Your task to perform on an android device: Go to Google Image 0: 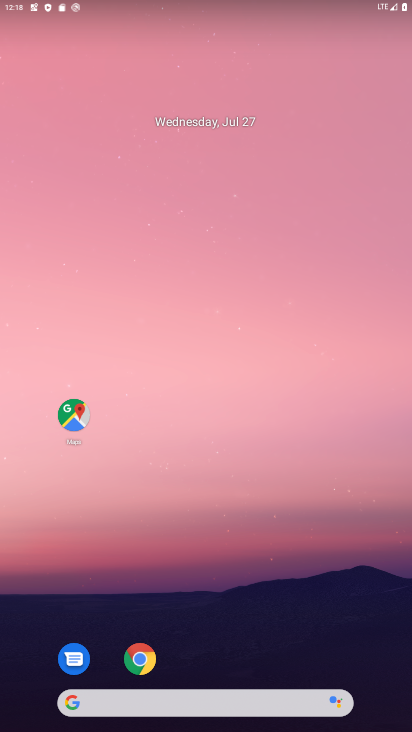
Step 0: drag from (242, 639) to (317, 18)
Your task to perform on an android device: Go to Google Image 1: 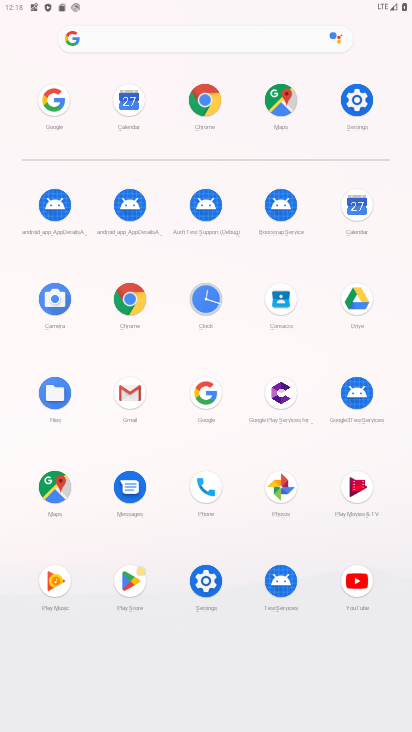
Step 1: click (61, 106)
Your task to perform on an android device: Go to Google Image 2: 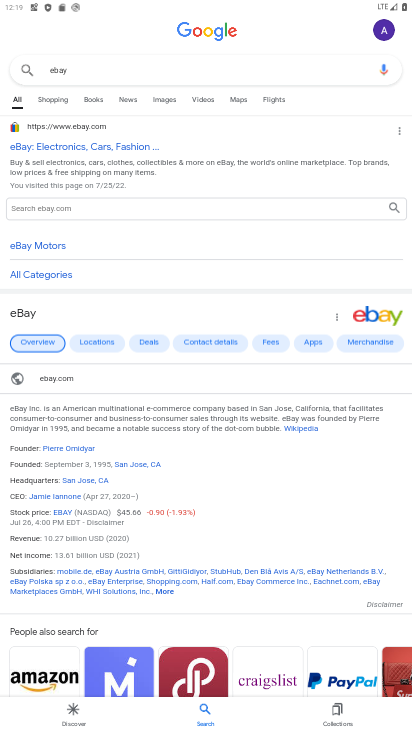
Step 2: task complete